Your task to perform on an android device: allow cookies in the chrome app Image 0: 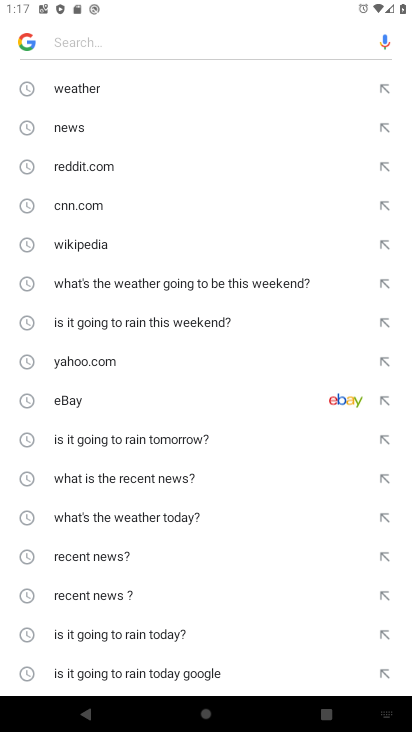
Step 0: press home button
Your task to perform on an android device: allow cookies in the chrome app Image 1: 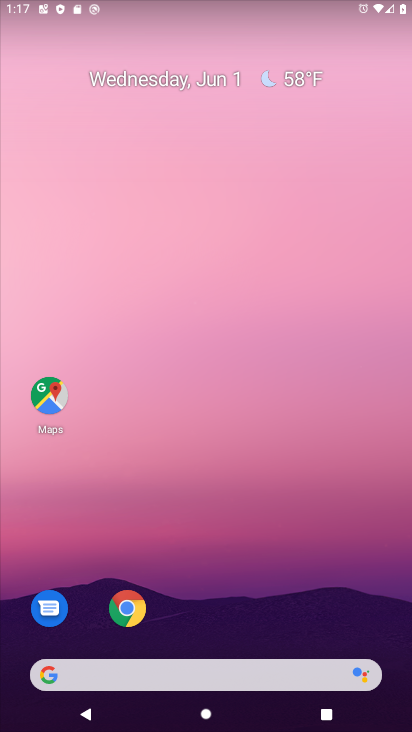
Step 1: click (133, 621)
Your task to perform on an android device: allow cookies in the chrome app Image 2: 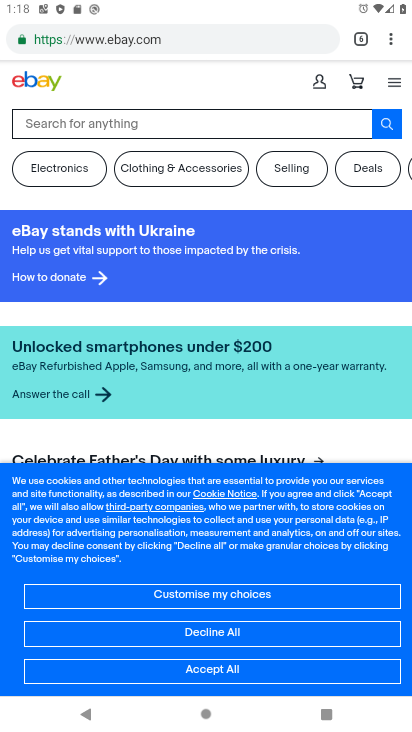
Step 2: click (387, 32)
Your task to perform on an android device: allow cookies in the chrome app Image 3: 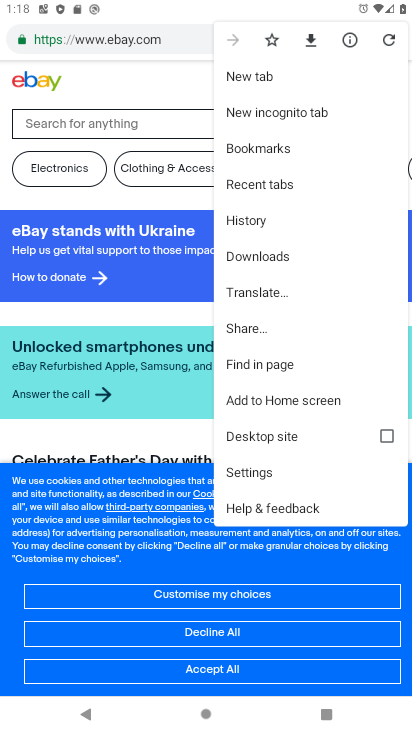
Step 3: click (289, 464)
Your task to perform on an android device: allow cookies in the chrome app Image 4: 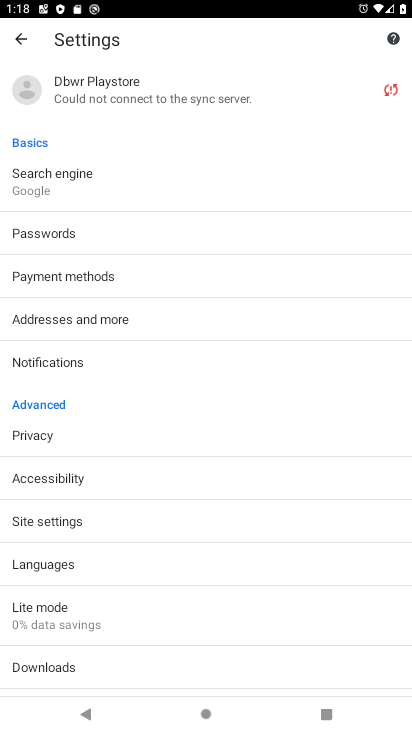
Step 4: click (72, 516)
Your task to perform on an android device: allow cookies in the chrome app Image 5: 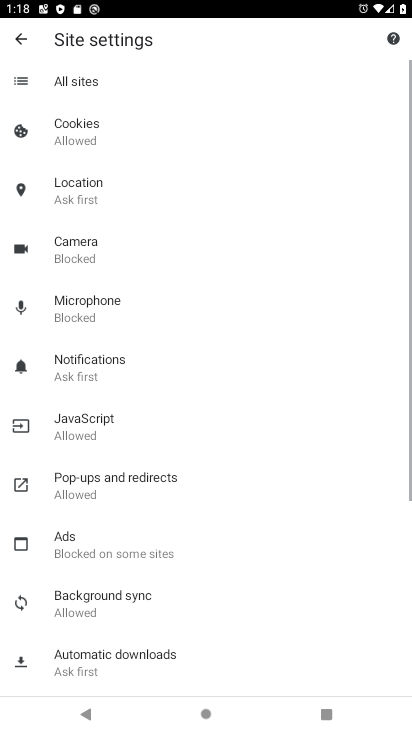
Step 5: click (113, 123)
Your task to perform on an android device: allow cookies in the chrome app Image 6: 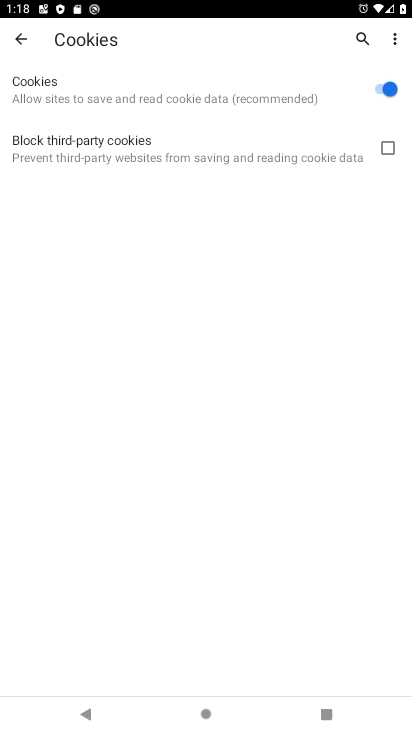
Step 6: task complete